Your task to perform on an android device: find photos in the google photos app Image 0: 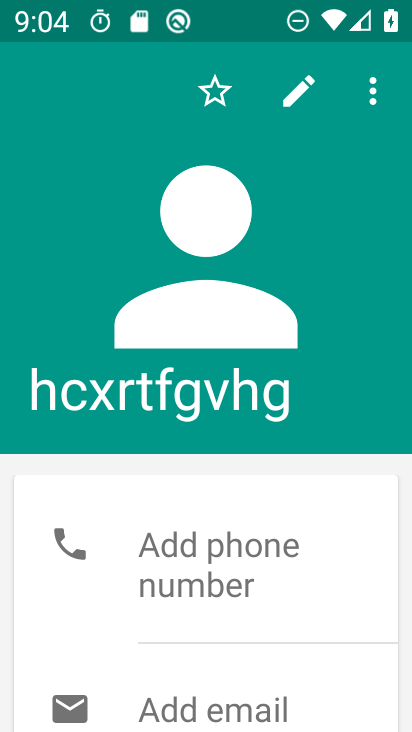
Step 0: press home button
Your task to perform on an android device: find photos in the google photos app Image 1: 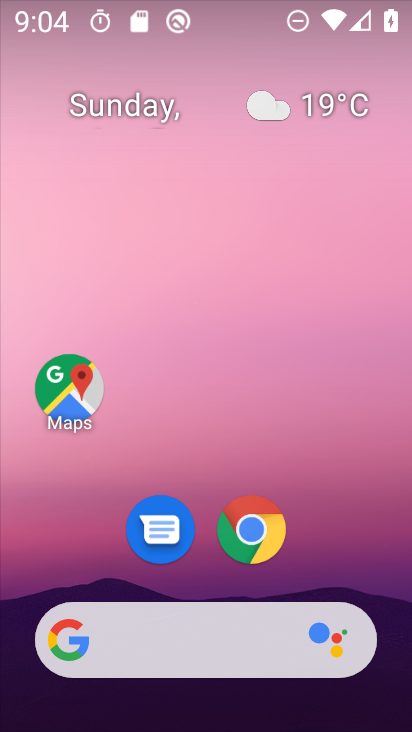
Step 1: drag from (207, 577) to (203, 7)
Your task to perform on an android device: find photos in the google photos app Image 2: 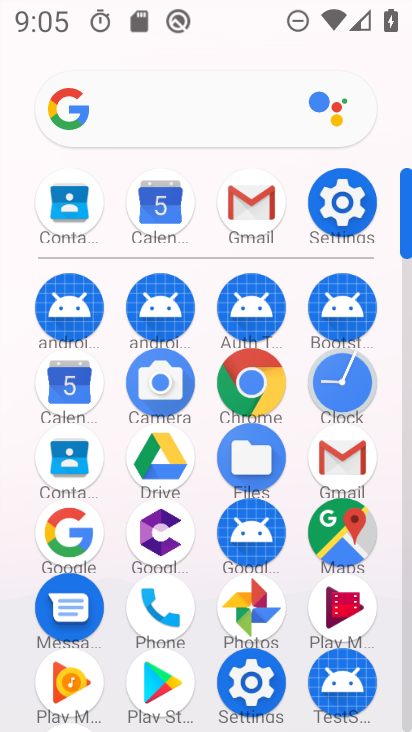
Step 2: click (251, 597)
Your task to perform on an android device: find photos in the google photos app Image 3: 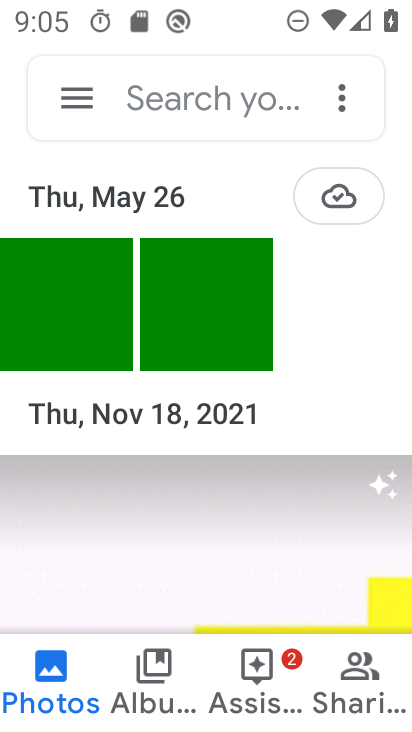
Step 3: task complete